Your task to perform on an android device: turn off javascript in the chrome app Image 0: 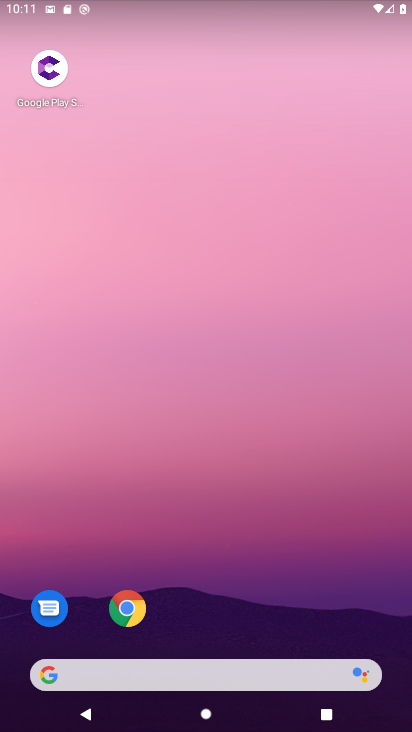
Step 0: click (125, 613)
Your task to perform on an android device: turn off javascript in the chrome app Image 1: 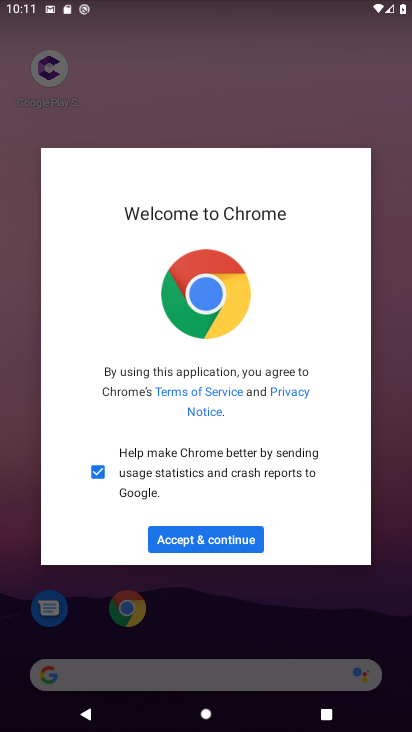
Step 1: click (202, 536)
Your task to perform on an android device: turn off javascript in the chrome app Image 2: 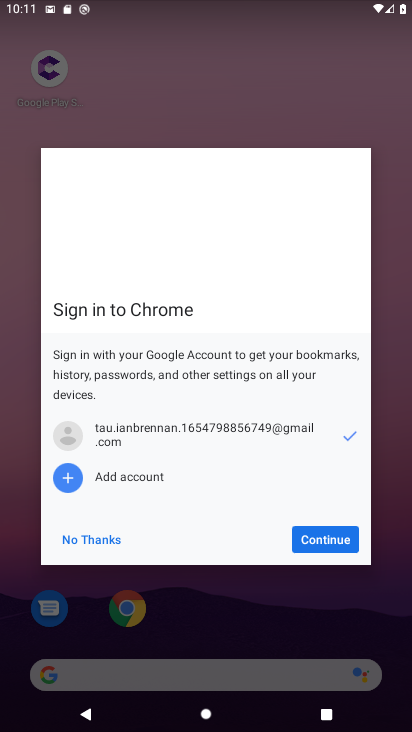
Step 2: click (331, 532)
Your task to perform on an android device: turn off javascript in the chrome app Image 3: 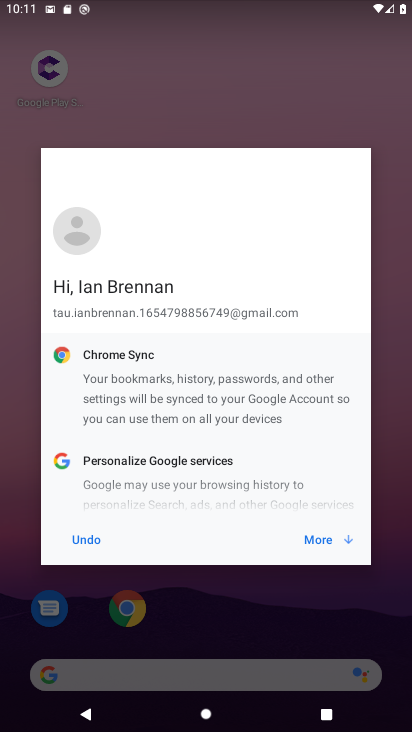
Step 3: click (325, 539)
Your task to perform on an android device: turn off javascript in the chrome app Image 4: 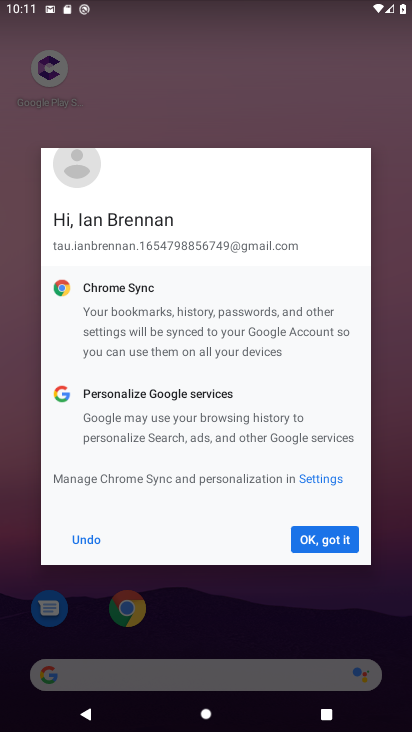
Step 4: click (325, 539)
Your task to perform on an android device: turn off javascript in the chrome app Image 5: 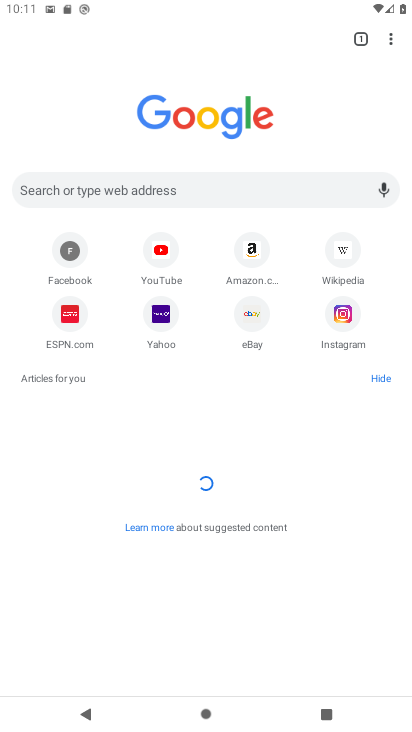
Step 5: task complete